Your task to perform on an android device: turn notification dots off Image 0: 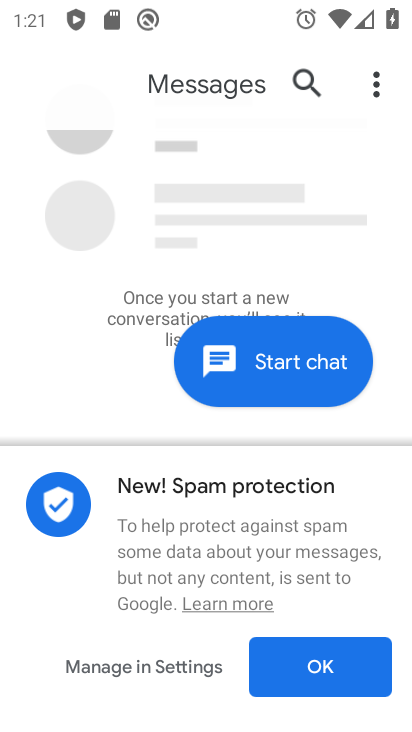
Step 0: press home button
Your task to perform on an android device: turn notification dots off Image 1: 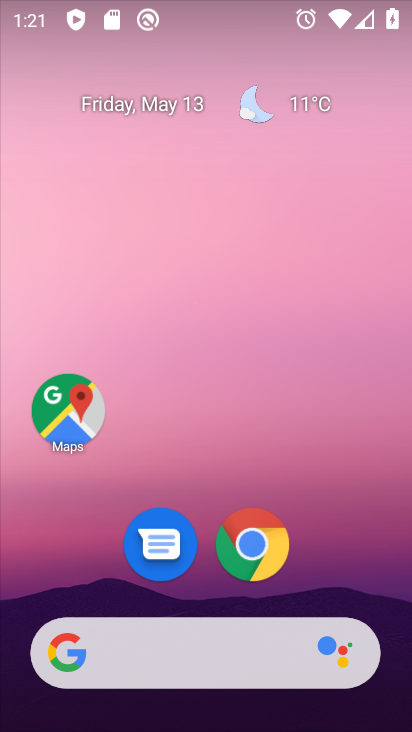
Step 1: drag from (209, 490) to (227, 308)
Your task to perform on an android device: turn notification dots off Image 2: 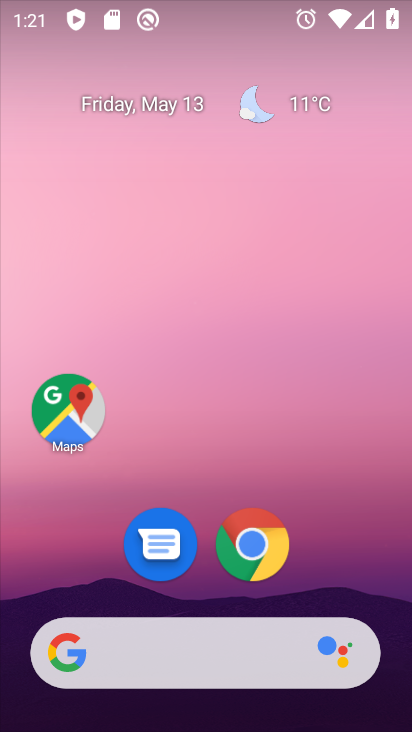
Step 2: drag from (201, 376) to (259, 150)
Your task to perform on an android device: turn notification dots off Image 3: 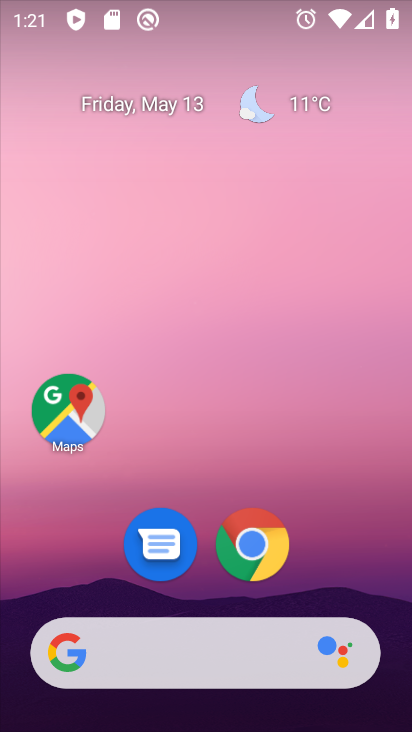
Step 3: drag from (193, 593) to (239, 132)
Your task to perform on an android device: turn notification dots off Image 4: 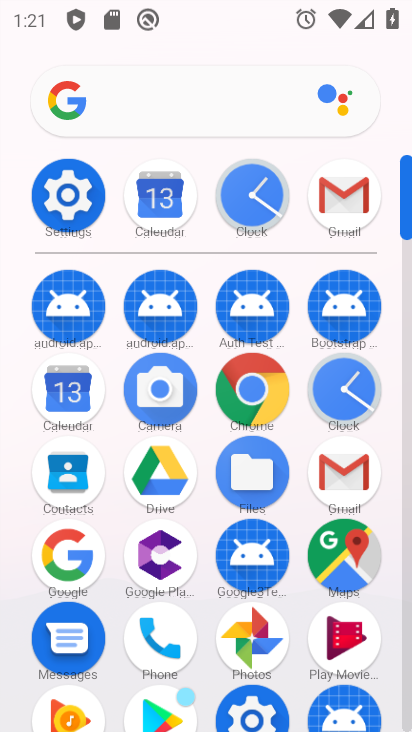
Step 4: click (69, 189)
Your task to perform on an android device: turn notification dots off Image 5: 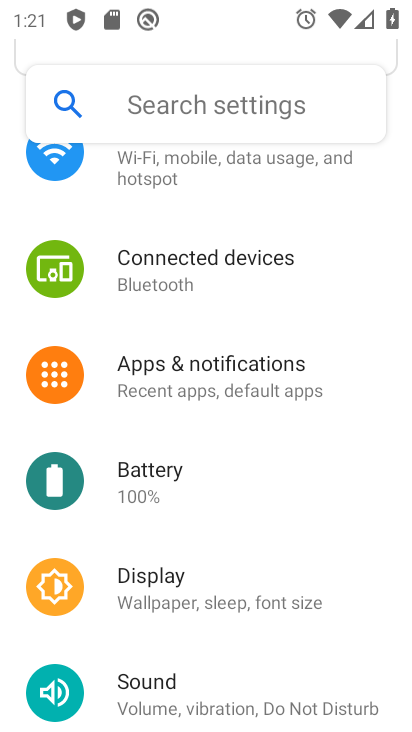
Step 5: click (223, 374)
Your task to perform on an android device: turn notification dots off Image 6: 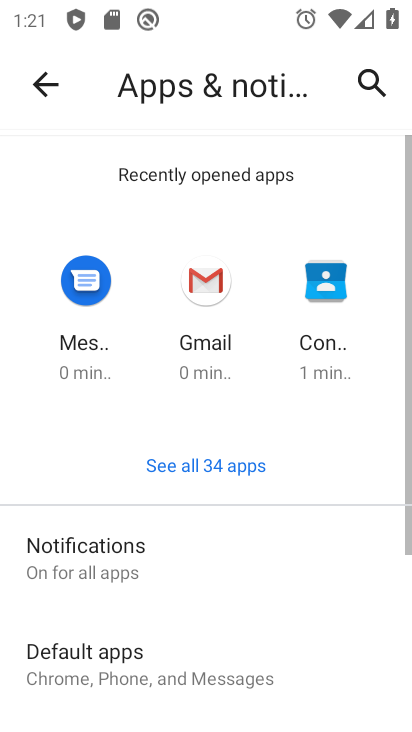
Step 6: drag from (110, 517) to (177, 189)
Your task to perform on an android device: turn notification dots off Image 7: 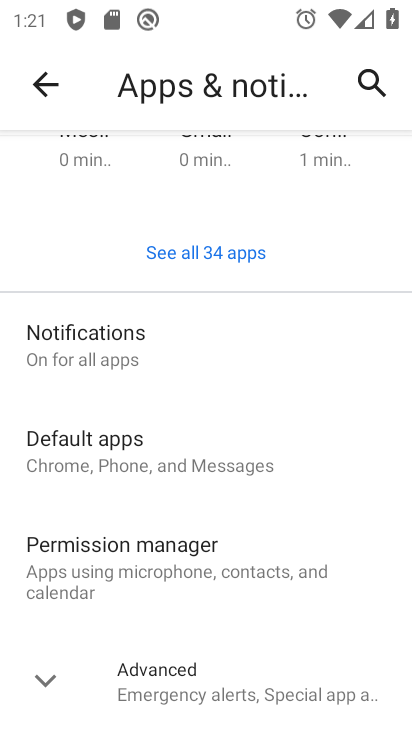
Step 7: click (107, 355)
Your task to perform on an android device: turn notification dots off Image 8: 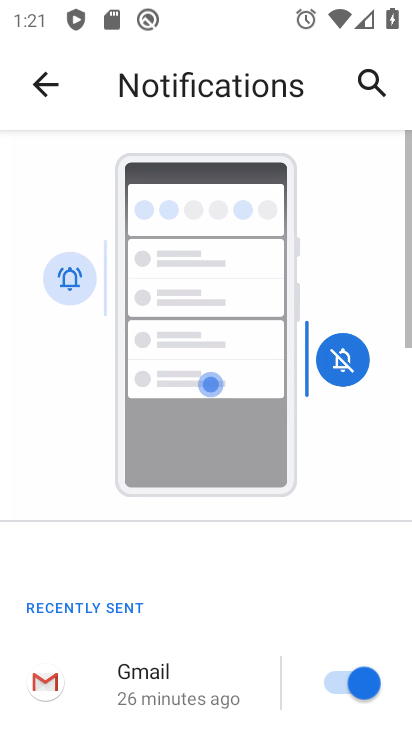
Step 8: drag from (202, 579) to (293, 147)
Your task to perform on an android device: turn notification dots off Image 9: 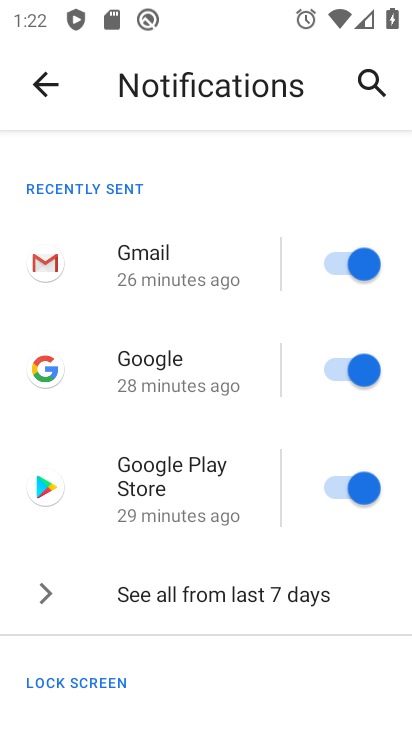
Step 9: drag from (119, 635) to (202, 280)
Your task to perform on an android device: turn notification dots off Image 10: 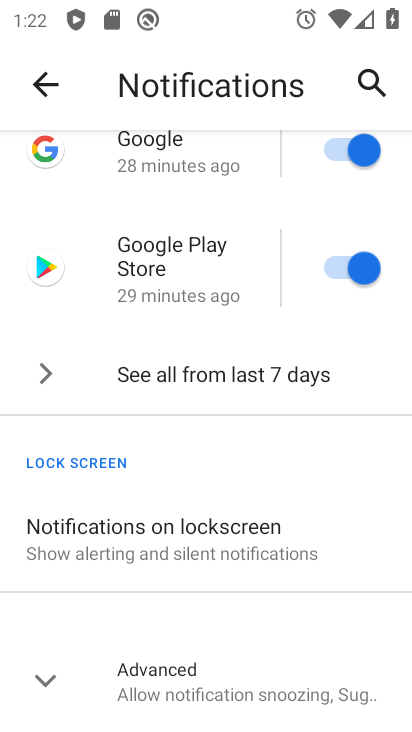
Step 10: click (57, 671)
Your task to perform on an android device: turn notification dots off Image 11: 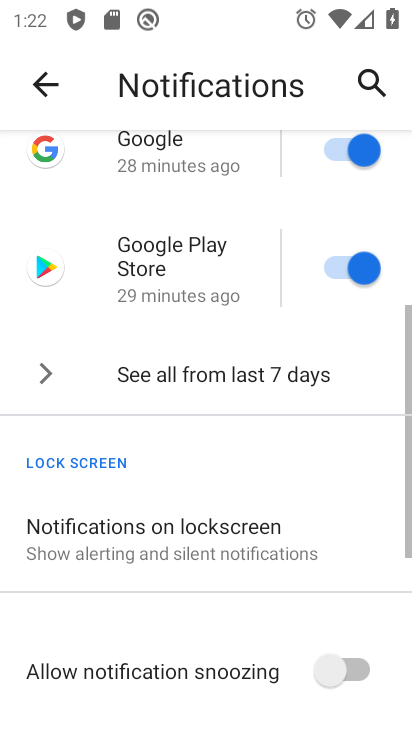
Step 11: drag from (86, 661) to (154, 235)
Your task to perform on an android device: turn notification dots off Image 12: 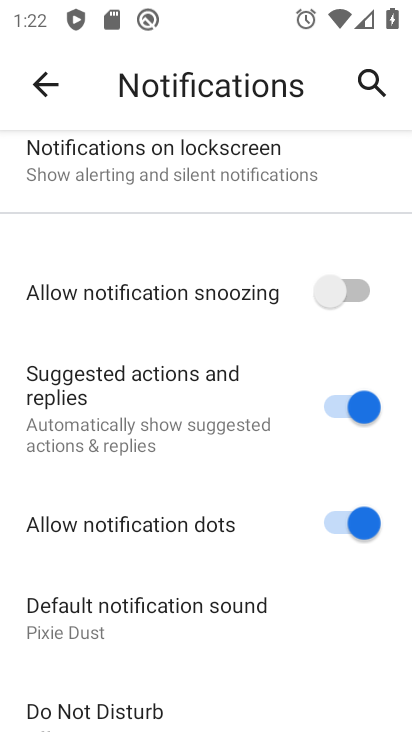
Step 12: click (337, 571)
Your task to perform on an android device: turn notification dots off Image 13: 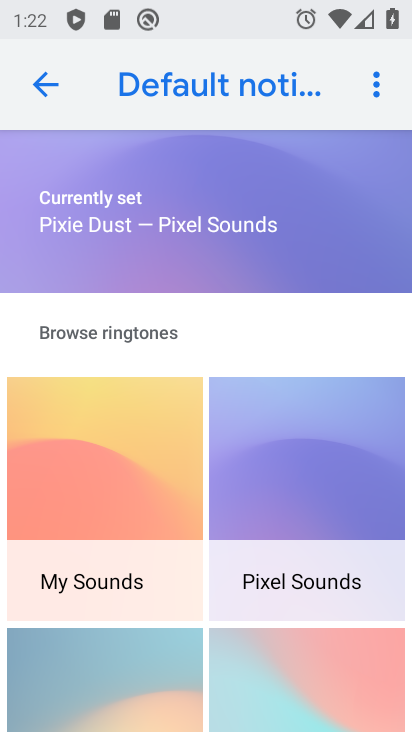
Step 13: click (46, 86)
Your task to perform on an android device: turn notification dots off Image 14: 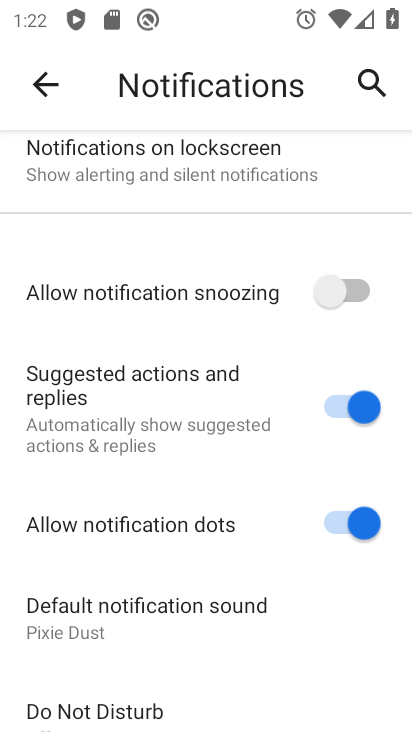
Step 14: click (347, 528)
Your task to perform on an android device: turn notification dots off Image 15: 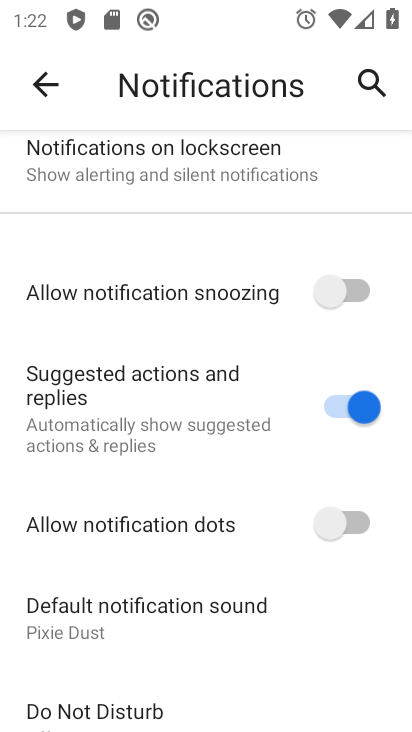
Step 15: task complete